Your task to perform on an android device: Open wifi settings Image 0: 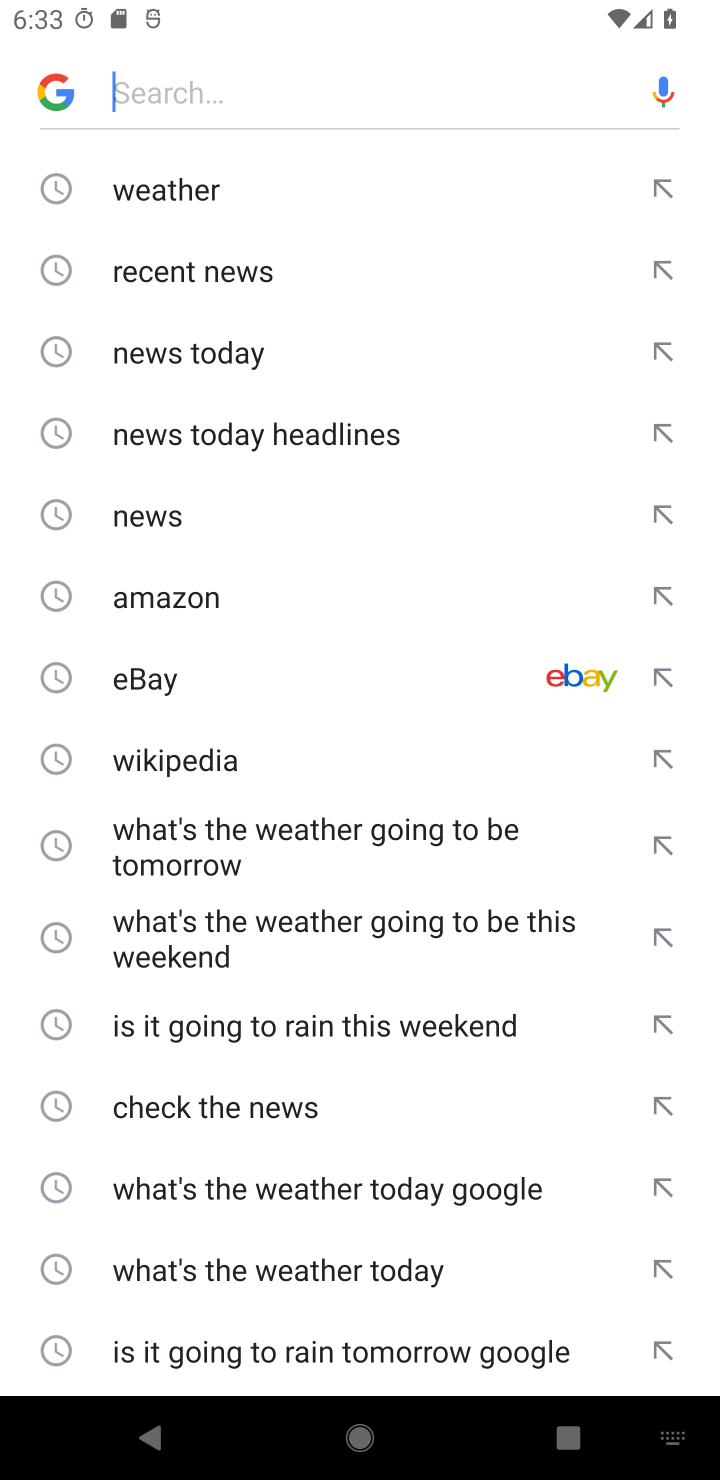
Step 0: press home button
Your task to perform on an android device: Open wifi settings Image 1: 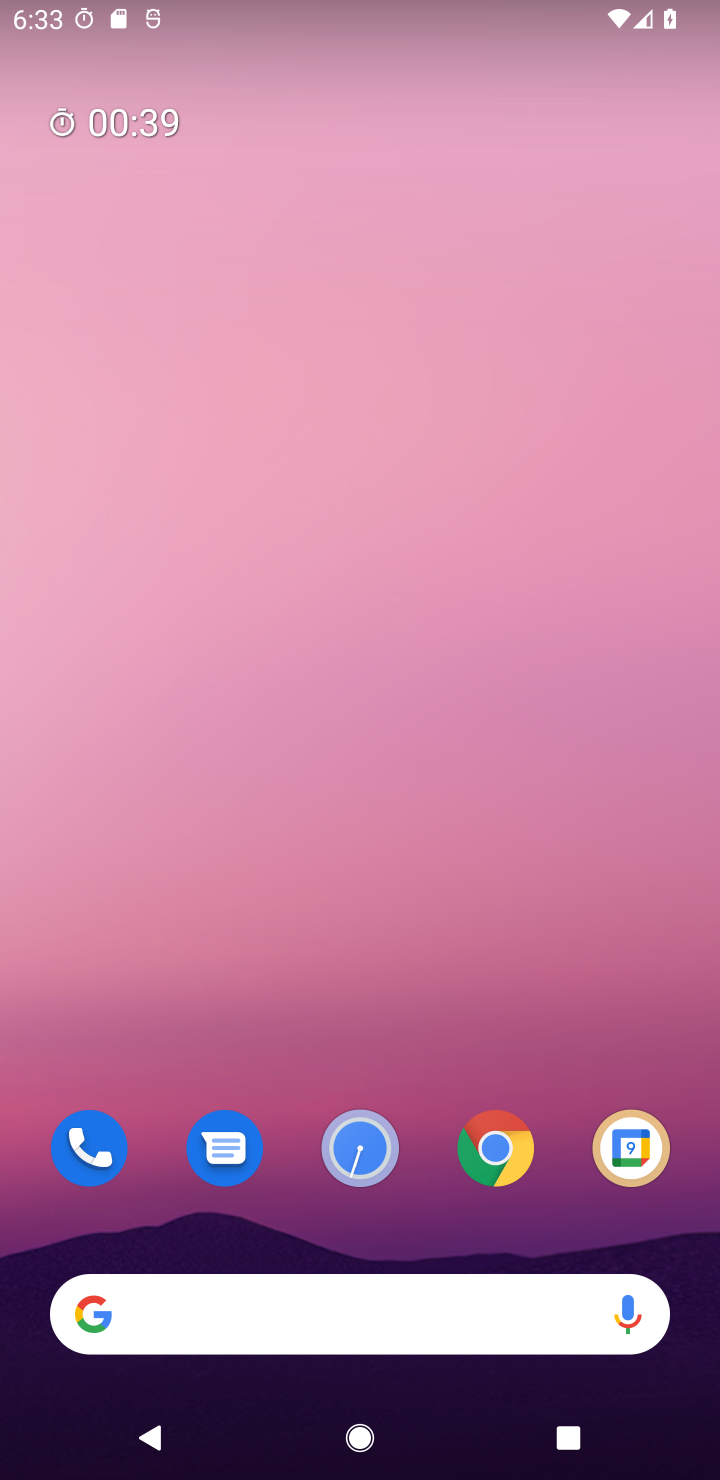
Step 1: drag from (387, 1233) to (363, 145)
Your task to perform on an android device: Open wifi settings Image 2: 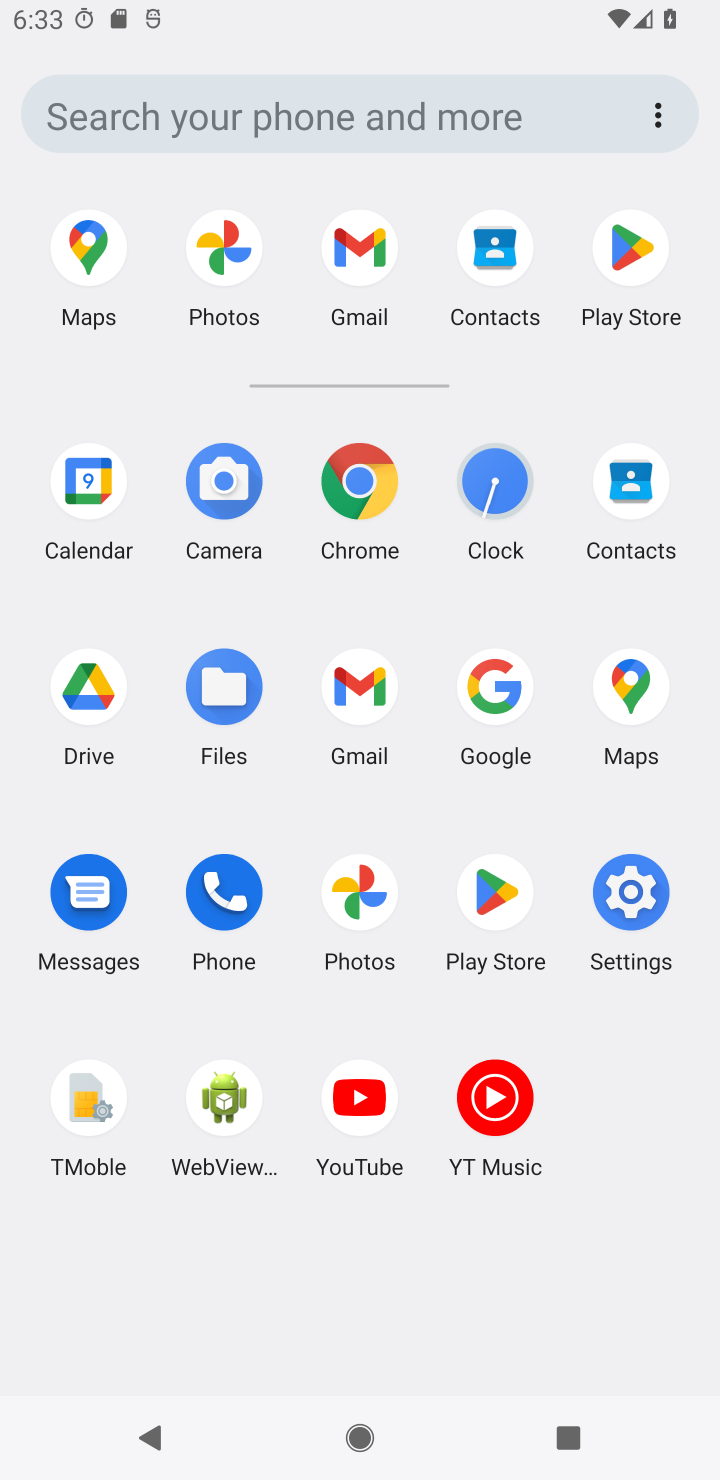
Step 2: click (631, 936)
Your task to perform on an android device: Open wifi settings Image 3: 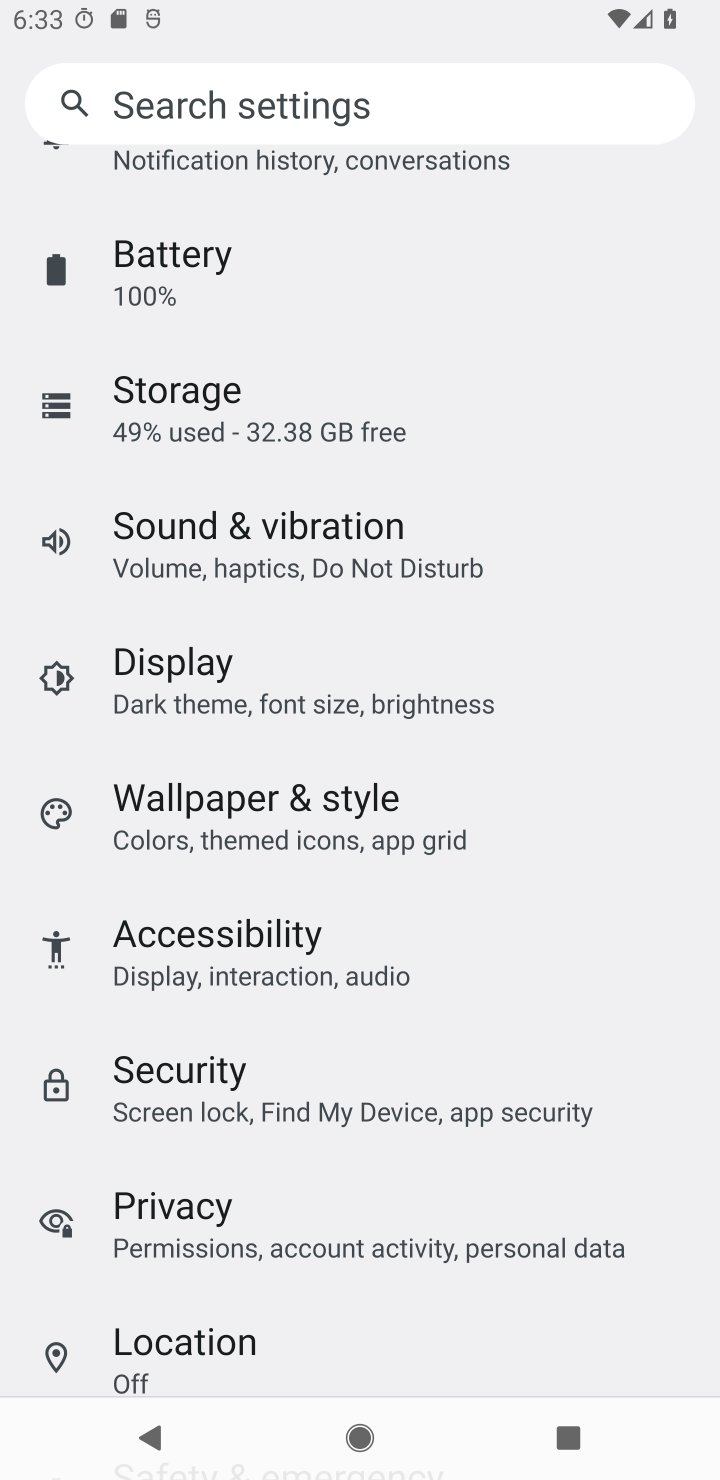
Step 3: drag from (256, 317) to (363, 1099)
Your task to perform on an android device: Open wifi settings Image 4: 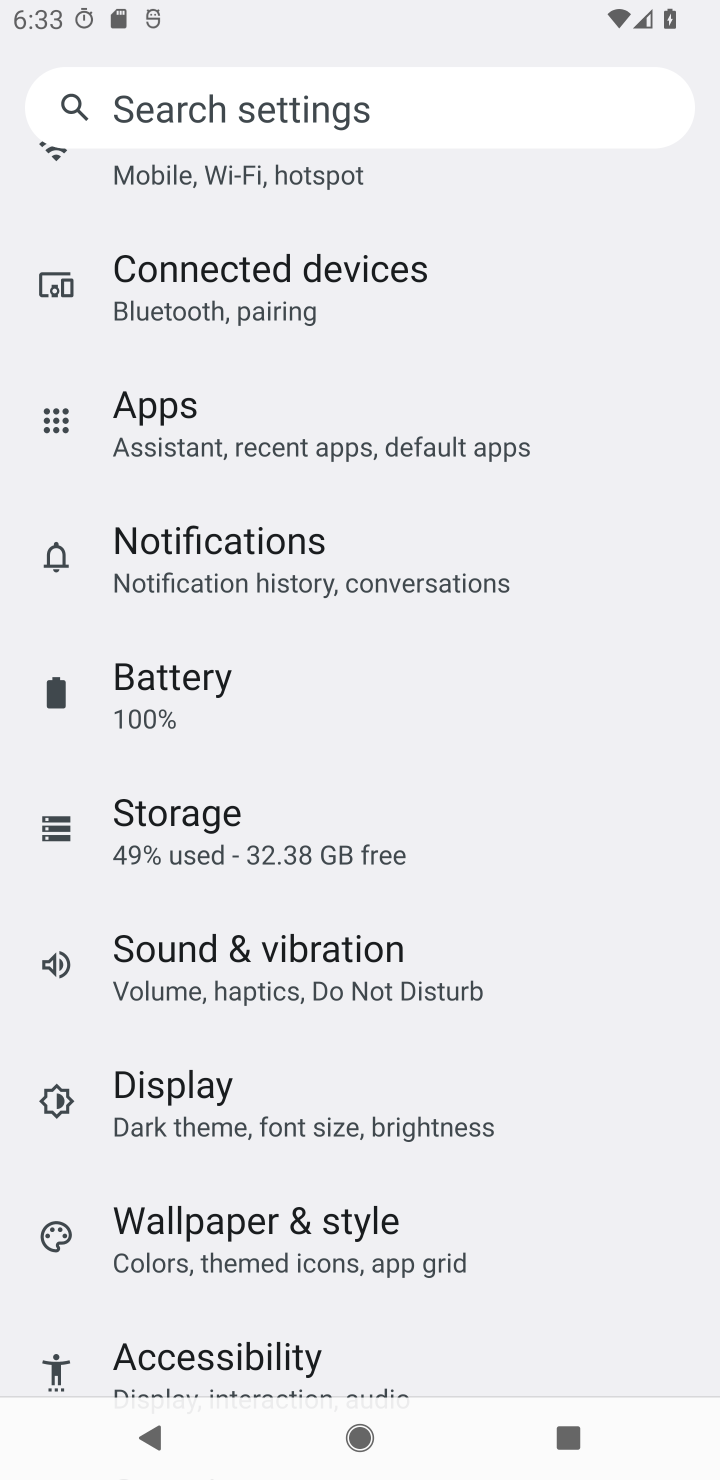
Step 4: drag from (350, 290) to (368, 1013)
Your task to perform on an android device: Open wifi settings Image 5: 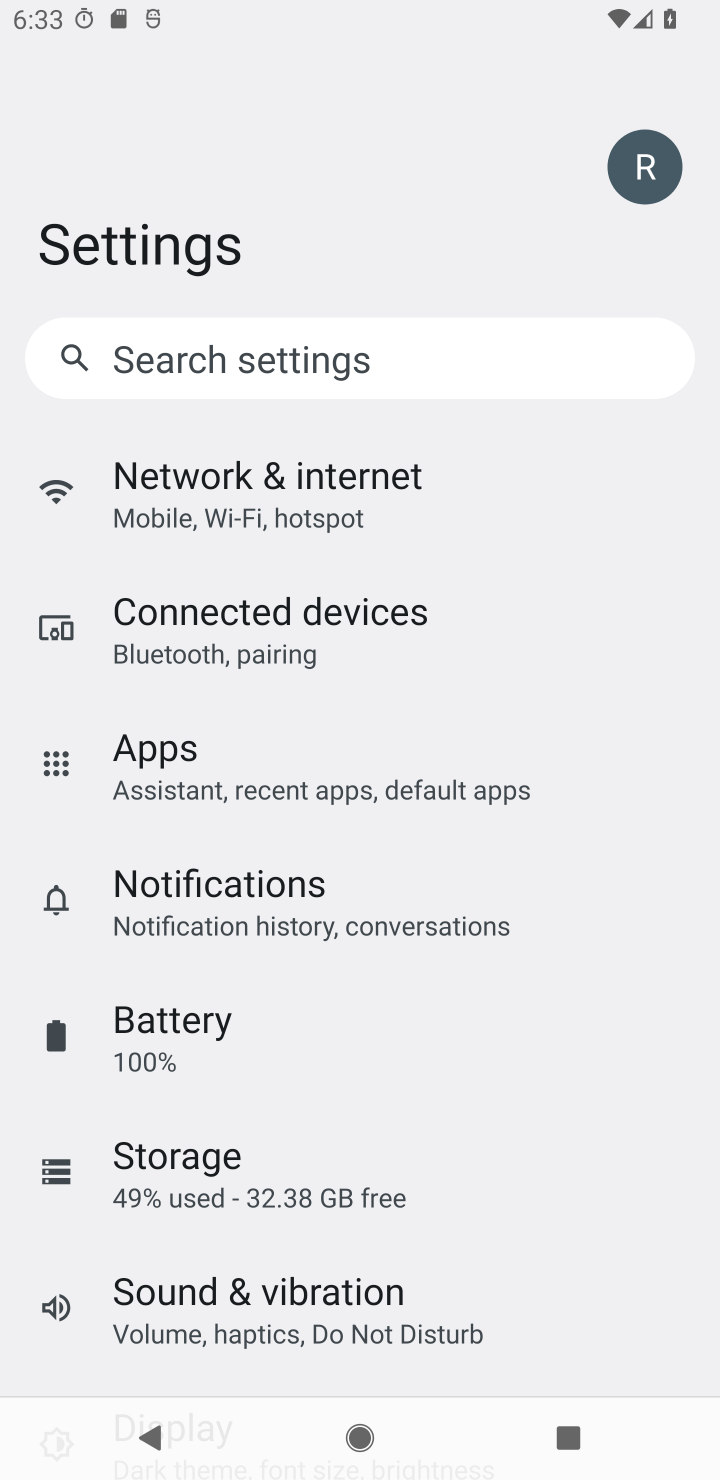
Step 5: click (317, 514)
Your task to perform on an android device: Open wifi settings Image 6: 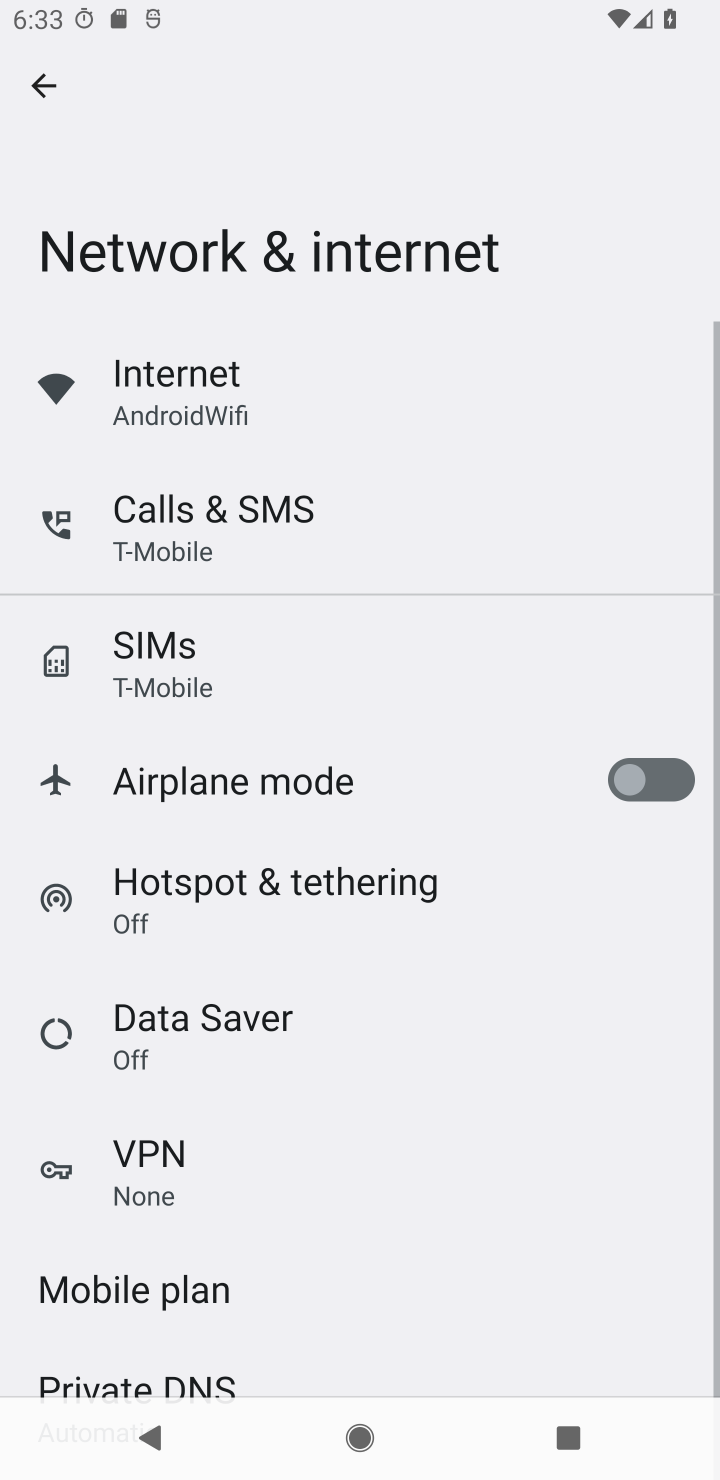
Step 6: click (187, 386)
Your task to perform on an android device: Open wifi settings Image 7: 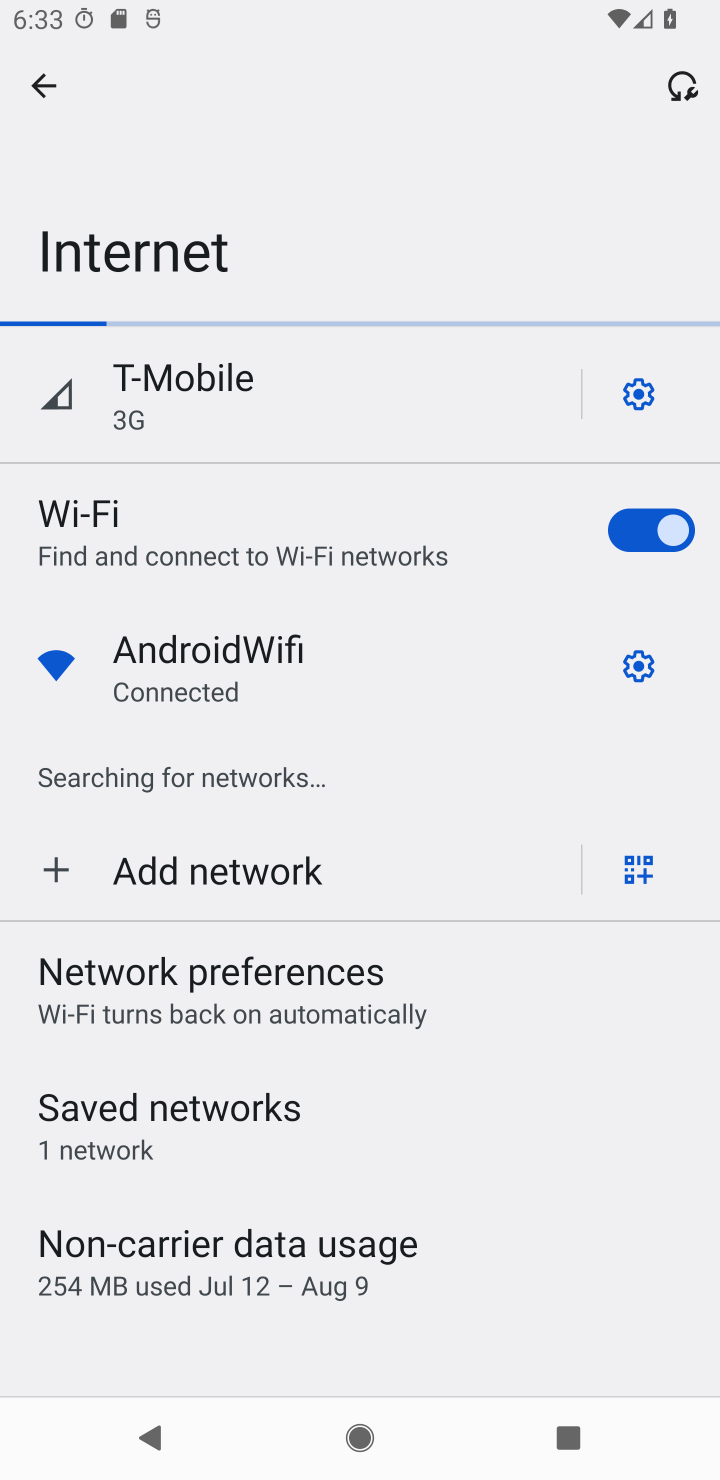
Step 7: task complete